Your task to perform on an android device: check the backup settings in the google photos Image 0: 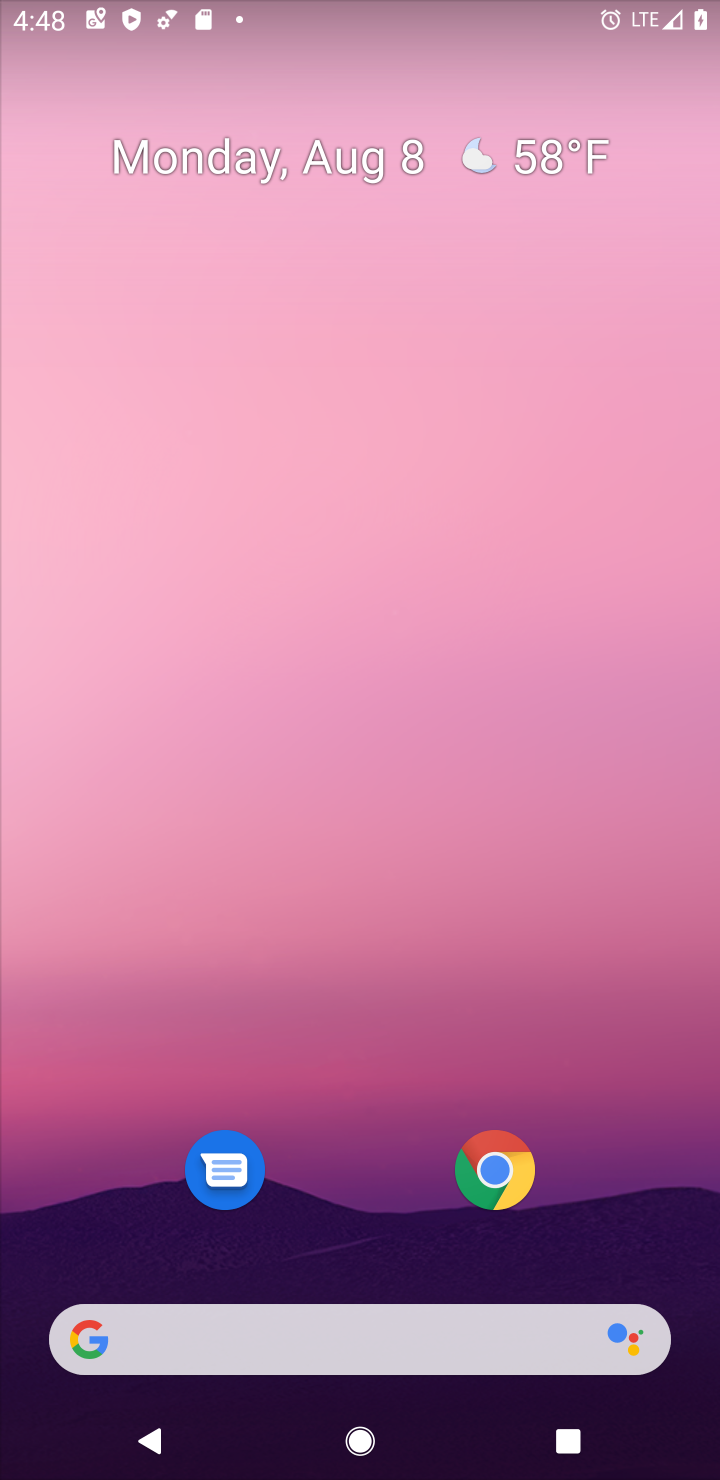
Step 0: drag from (354, 1142) to (290, 292)
Your task to perform on an android device: check the backup settings in the google photos Image 1: 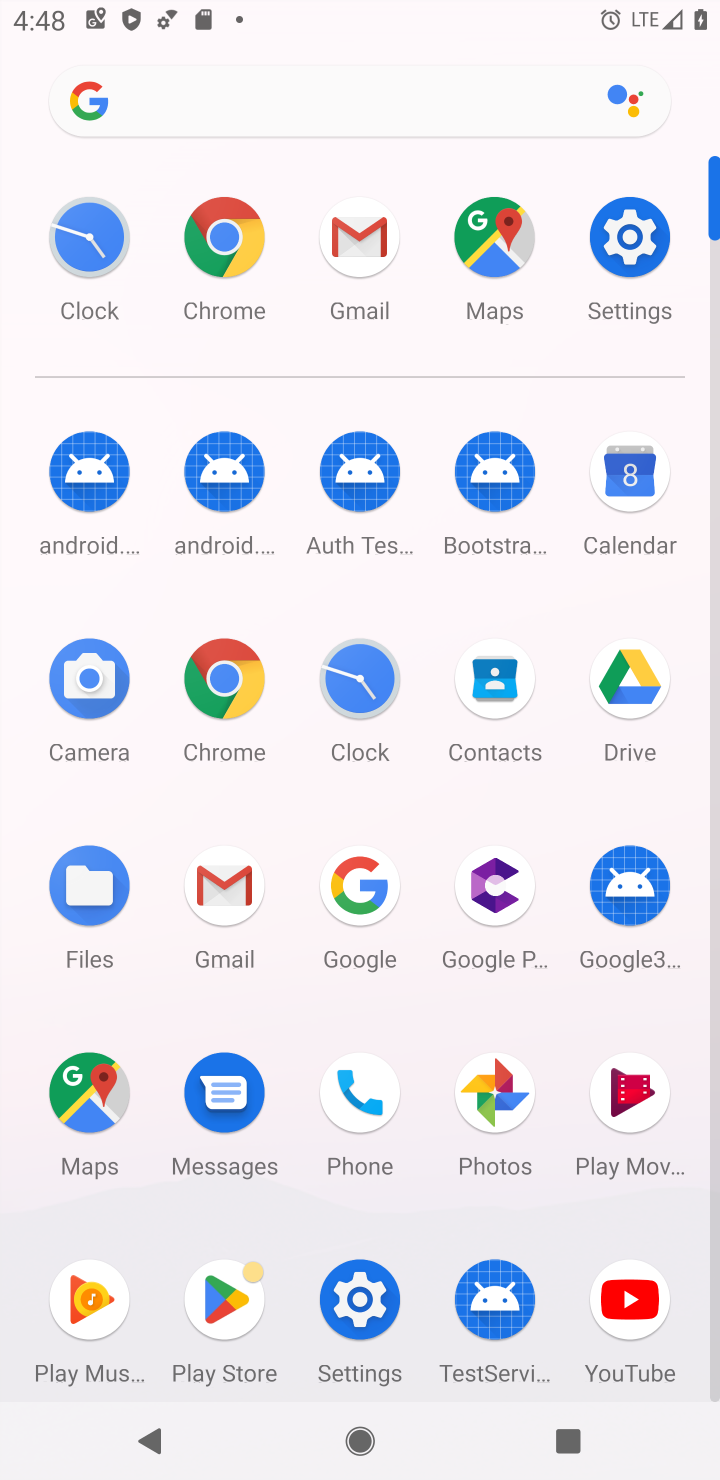
Step 1: click (510, 1135)
Your task to perform on an android device: check the backup settings in the google photos Image 2: 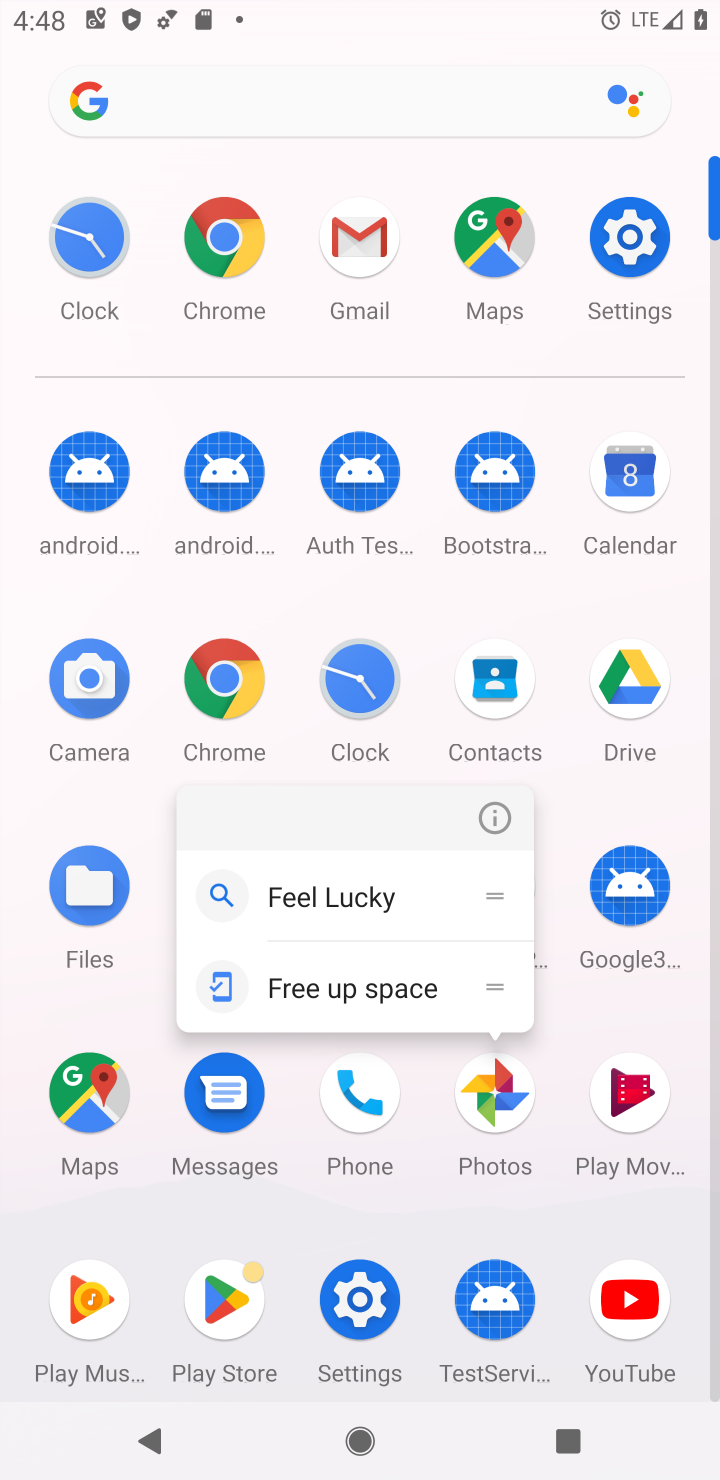
Step 2: click (510, 1135)
Your task to perform on an android device: check the backup settings in the google photos Image 3: 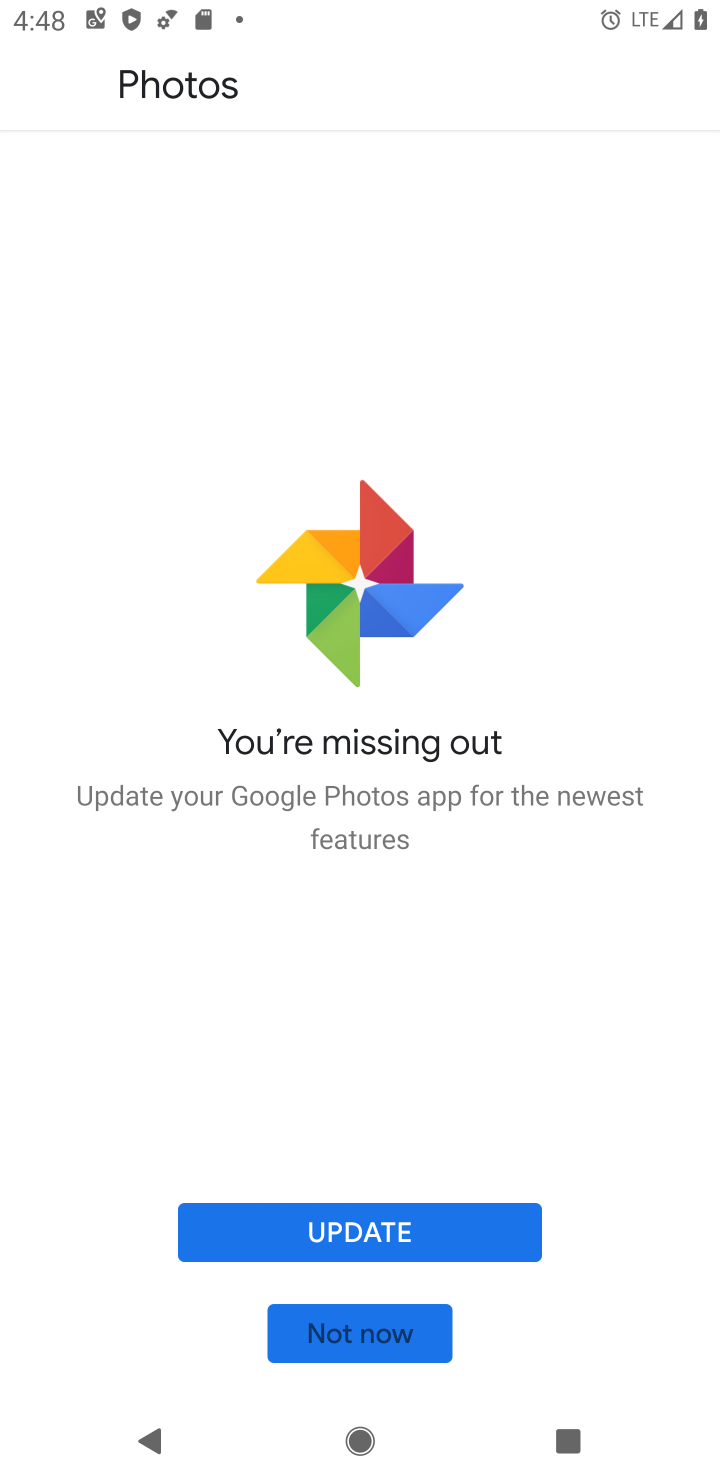
Step 3: click (352, 1324)
Your task to perform on an android device: check the backup settings in the google photos Image 4: 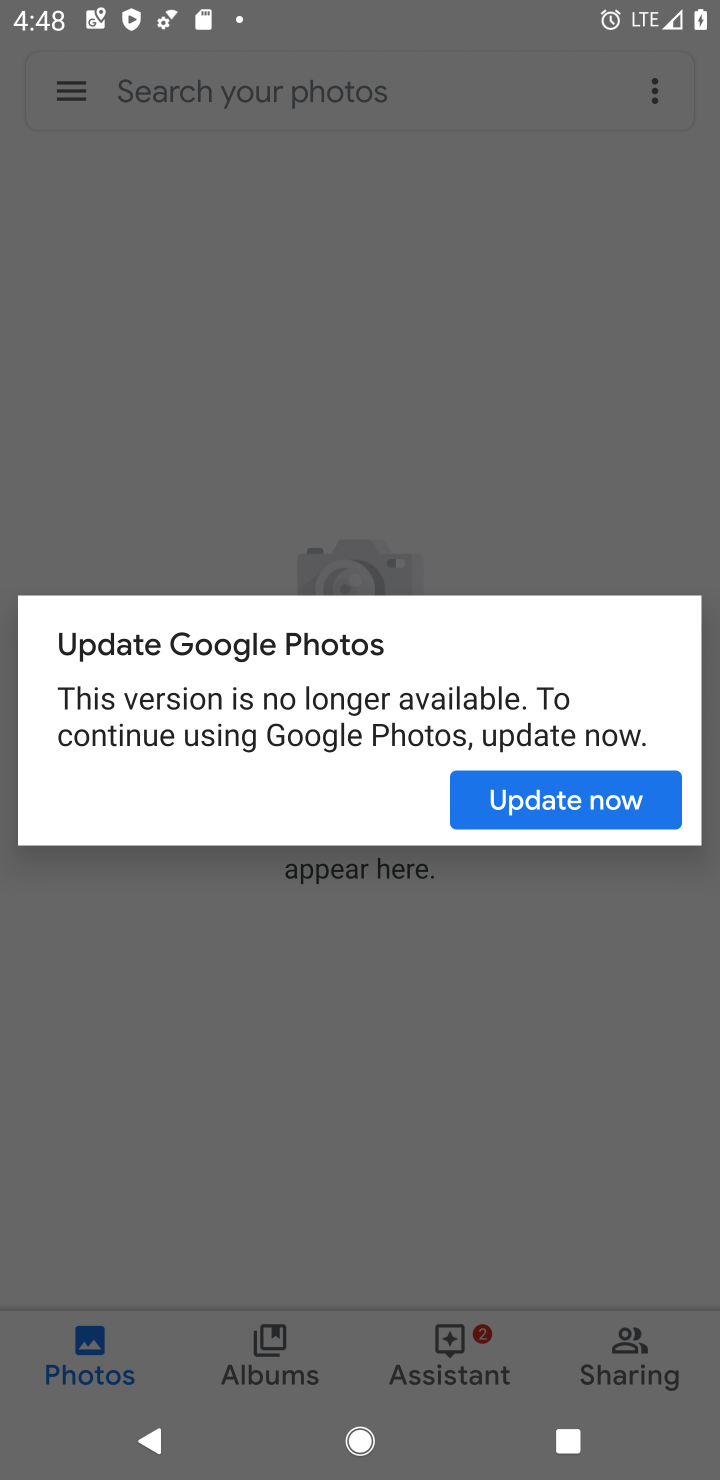
Step 4: click (499, 810)
Your task to perform on an android device: check the backup settings in the google photos Image 5: 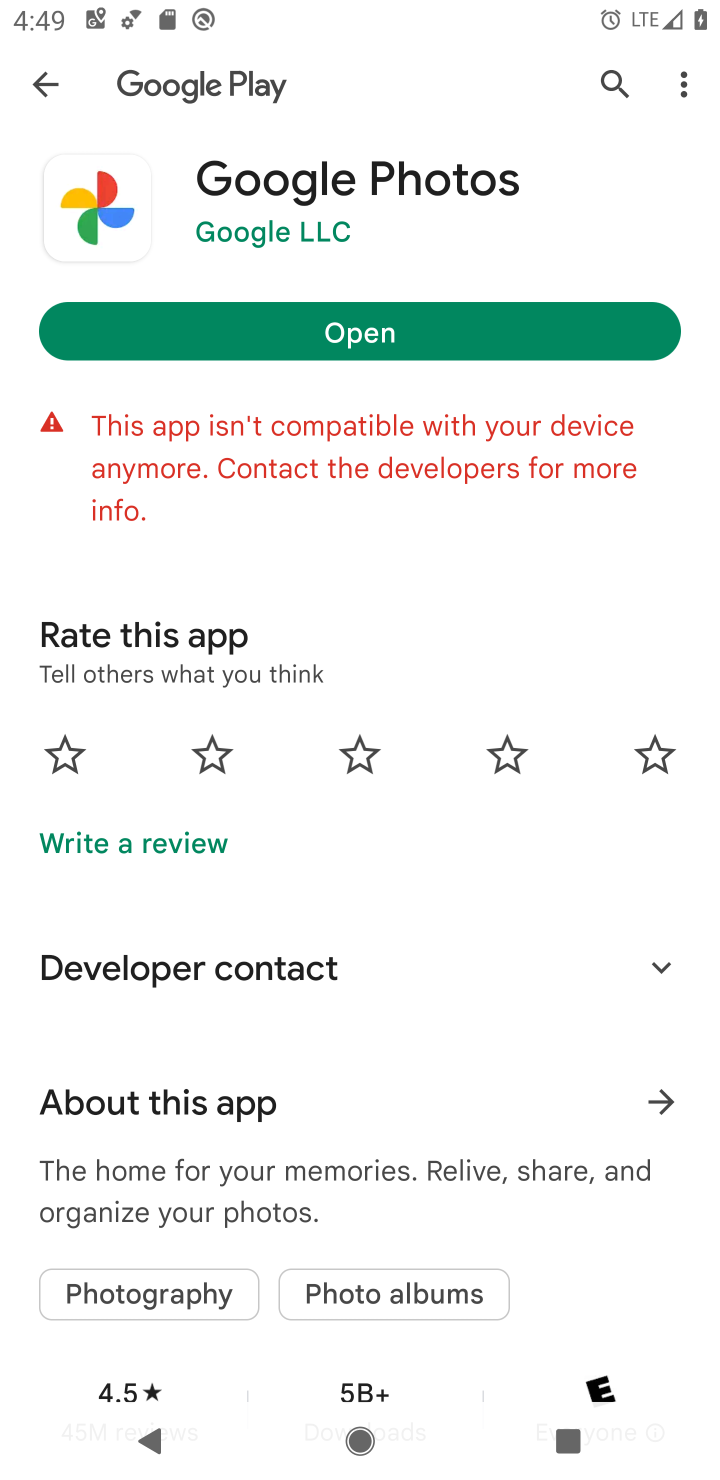
Step 5: click (311, 343)
Your task to perform on an android device: check the backup settings in the google photos Image 6: 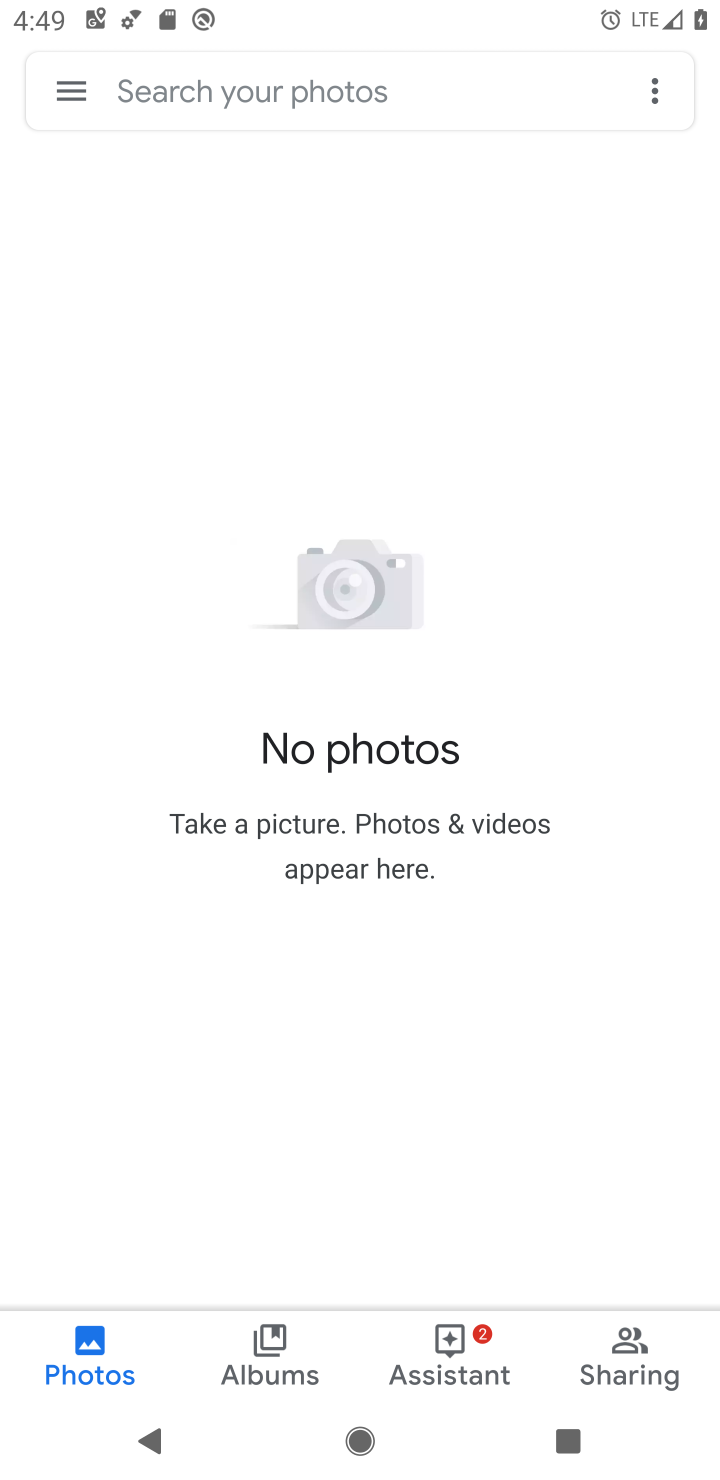
Step 6: click (51, 74)
Your task to perform on an android device: check the backup settings in the google photos Image 7: 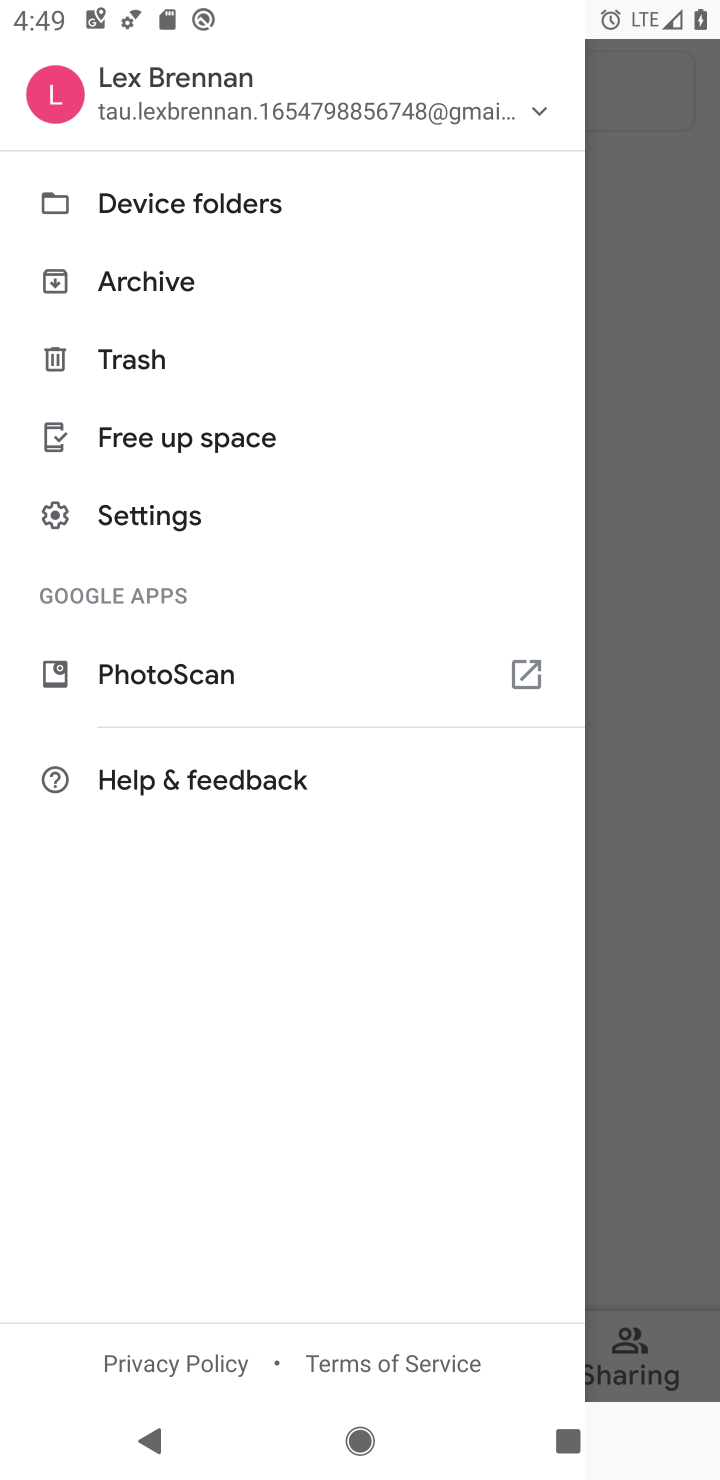
Step 7: click (105, 525)
Your task to perform on an android device: check the backup settings in the google photos Image 8: 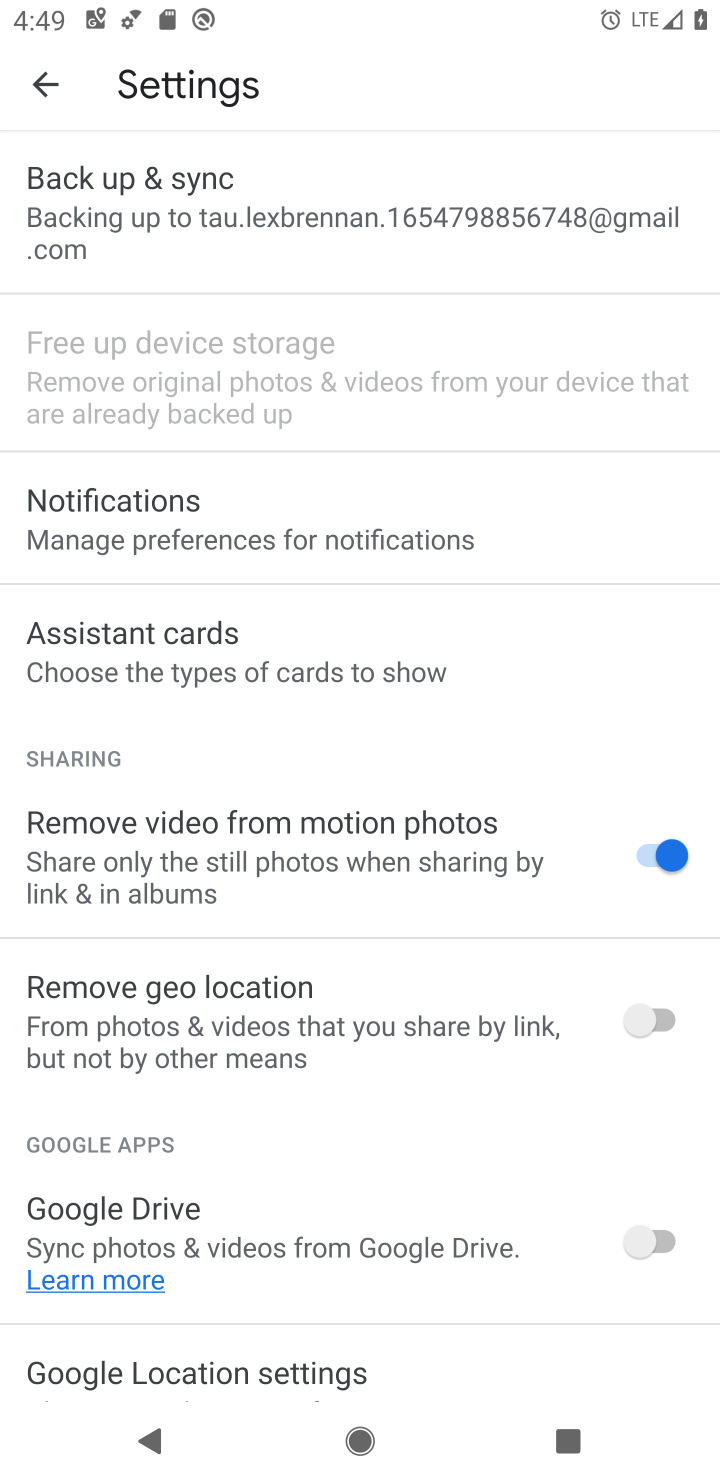
Step 8: click (223, 206)
Your task to perform on an android device: check the backup settings in the google photos Image 9: 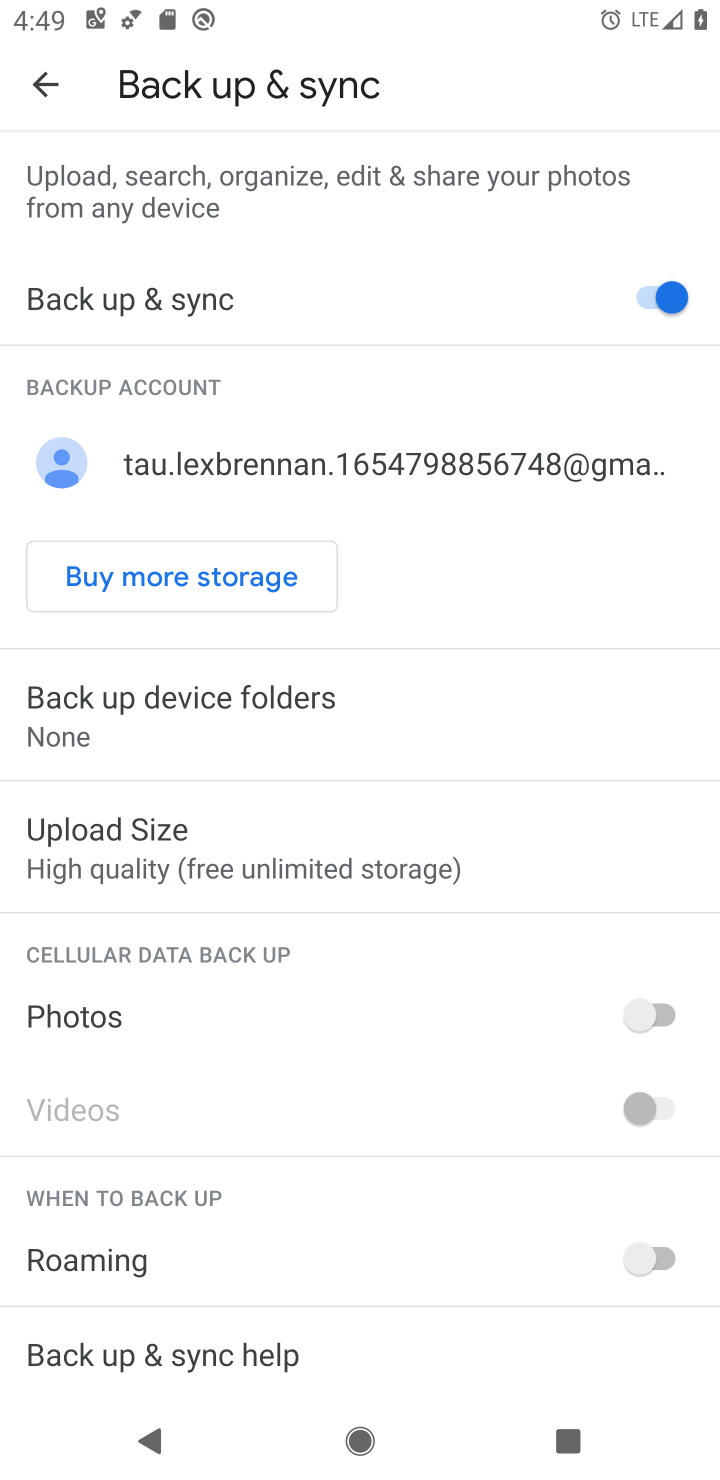
Step 9: task complete